Your task to perform on an android device: Open Google Chrome and click the shortcut for Amazon.com Image 0: 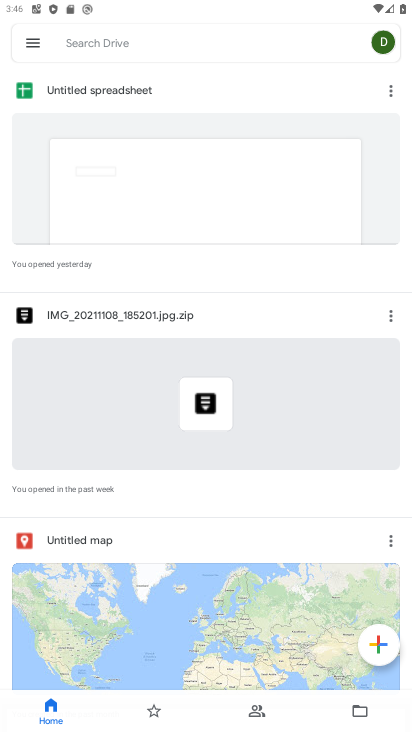
Step 0: press home button
Your task to perform on an android device: Open Google Chrome and click the shortcut for Amazon.com Image 1: 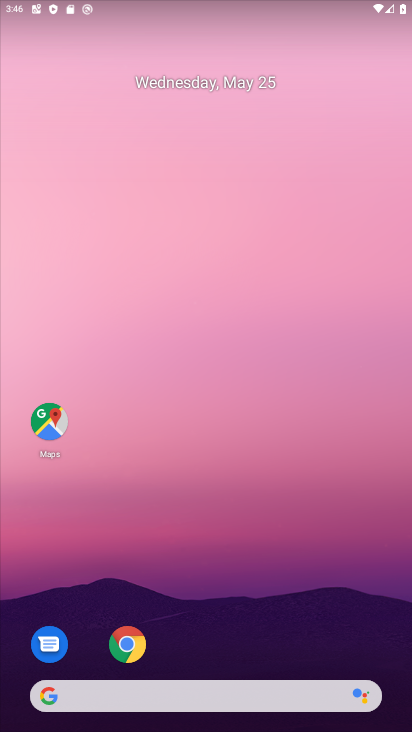
Step 1: click (134, 644)
Your task to perform on an android device: Open Google Chrome and click the shortcut for Amazon.com Image 2: 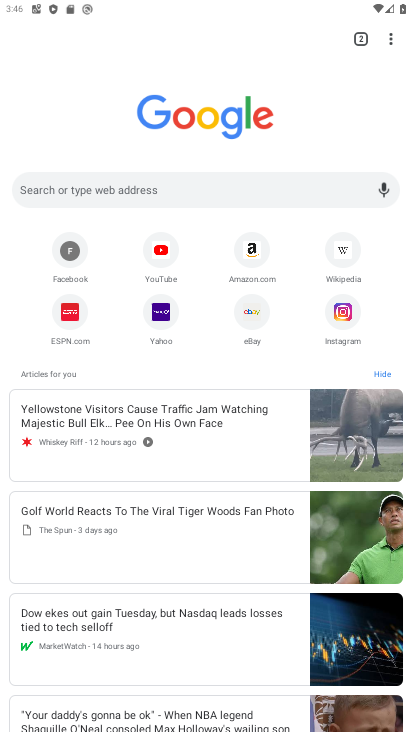
Step 2: click (241, 260)
Your task to perform on an android device: Open Google Chrome and click the shortcut for Amazon.com Image 3: 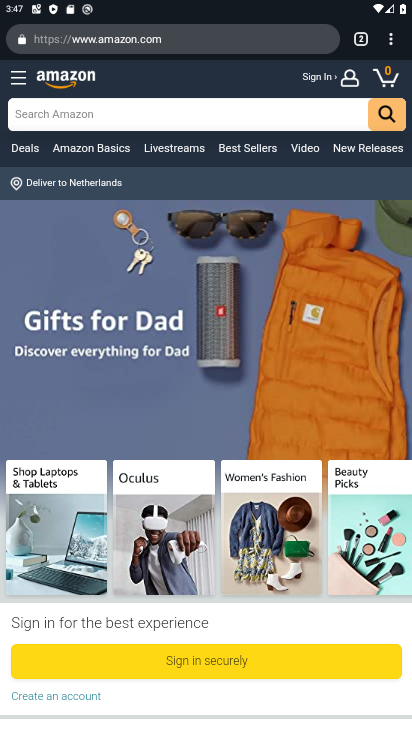
Step 3: task complete